Your task to perform on an android device: Search for sushi restaurants on Maps Image 0: 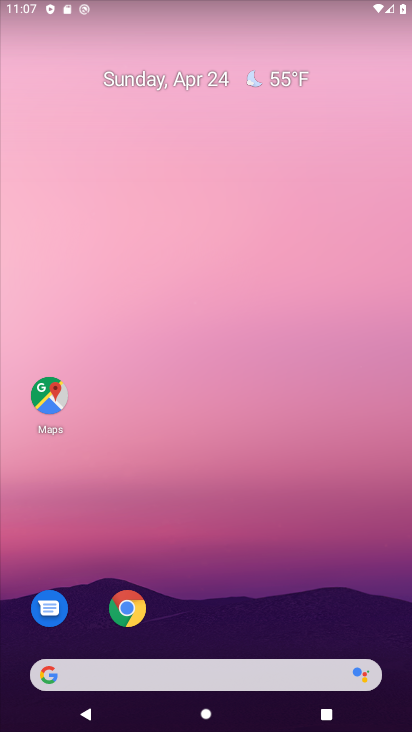
Step 0: click (43, 393)
Your task to perform on an android device: Search for sushi restaurants on Maps Image 1: 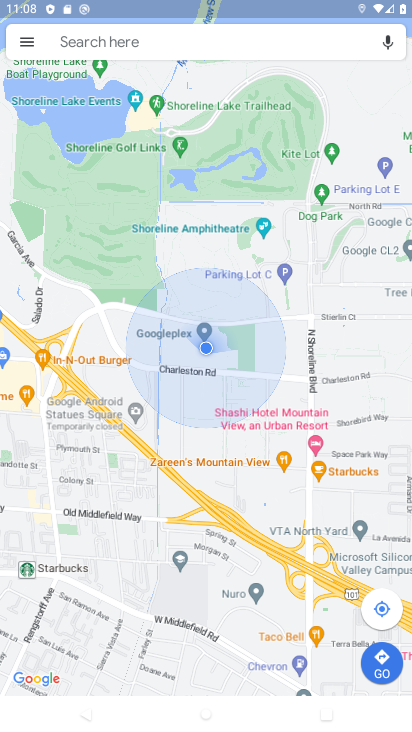
Step 1: click (146, 36)
Your task to perform on an android device: Search for sushi restaurants on Maps Image 2: 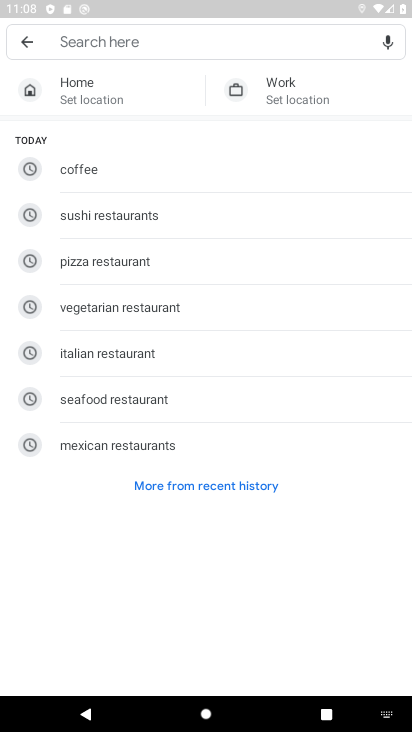
Step 2: click (93, 38)
Your task to perform on an android device: Search for sushi restaurants on Maps Image 3: 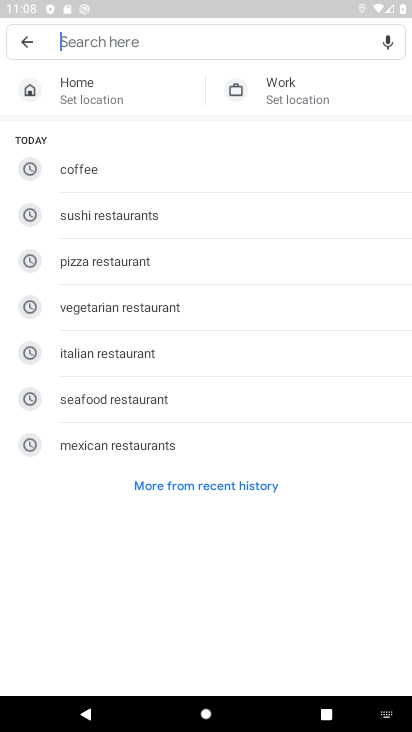
Step 3: type "sushi"
Your task to perform on an android device: Search for sushi restaurants on Maps Image 4: 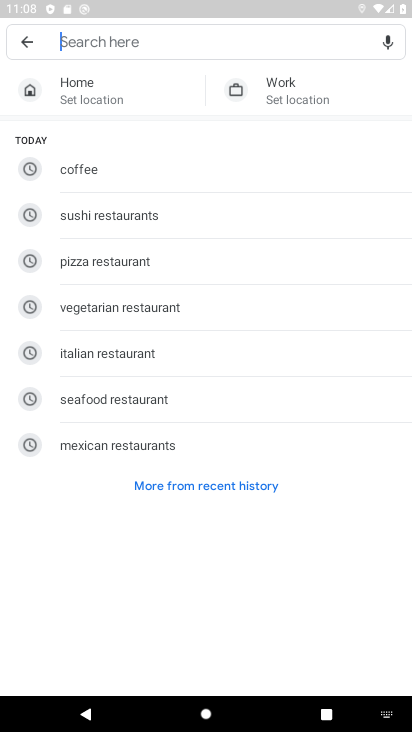
Step 4: click (139, 211)
Your task to perform on an android device: Search for sushi restaurants on Maps Image 5: 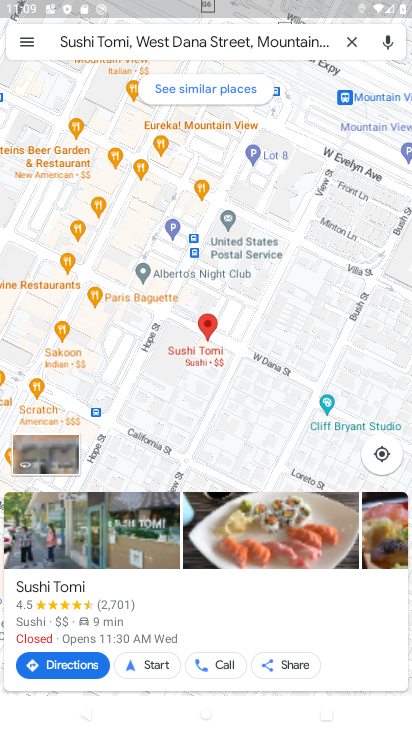
Step 5: click (349, 42)
Your task to perform on an android device: Search for sushi restaurants on Maps Image 6: 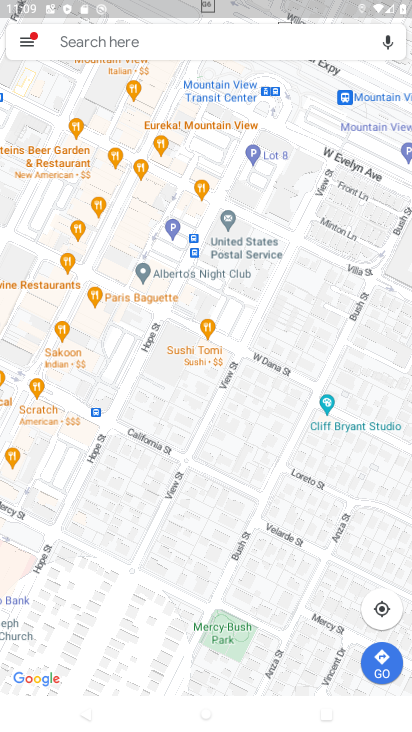
Step 6: click (148, 41)
Your task to perform on an android device: Search for sushi restaurants on Maps Image 7: 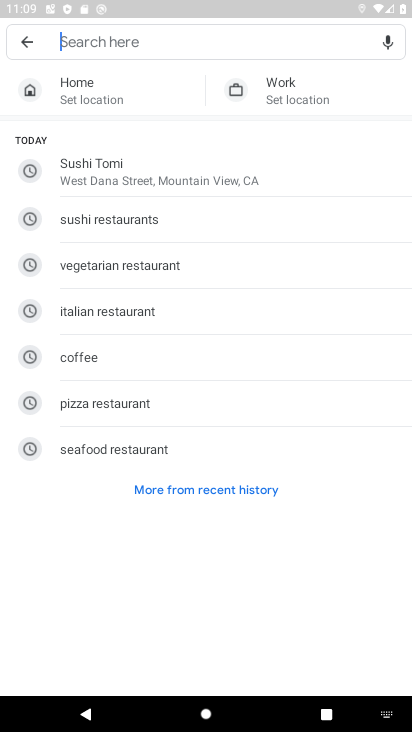
Step 7: click (123, 214)
Your task to perform on an android device: Search for sushi restaurants on Maps Image 8: 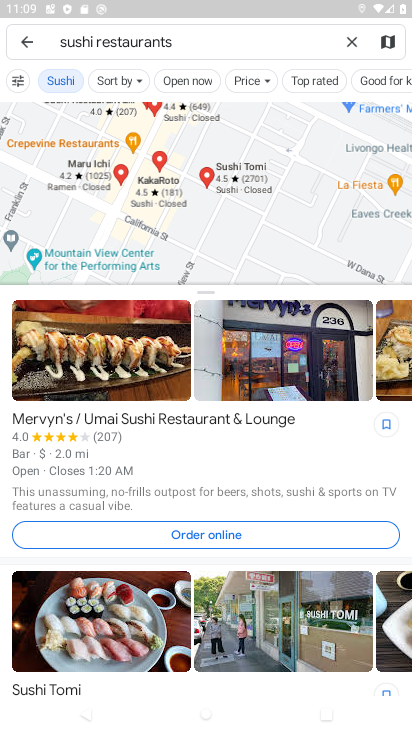
Step 8: task complete